Your task to perform on an android device: Search for Mexican restaurants on Maps Image 0: 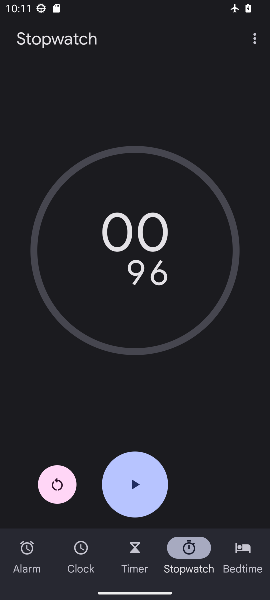
Step 0: press home button
Your task to perform on an android device: Search for Mexican restaurants on Maps Image 1: 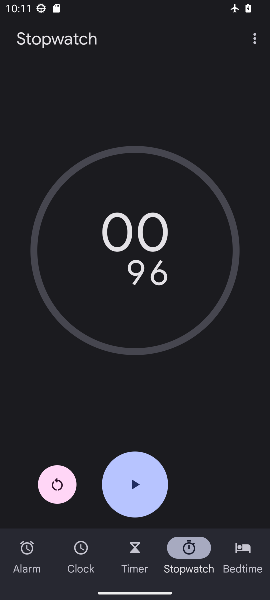
Step 1: press home button
Your task to perform on an android device: Search for Mexican restaurants on Maps Image 2: 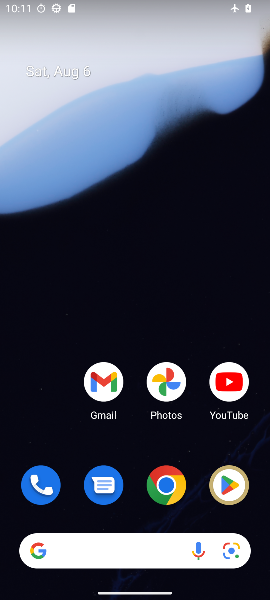
Step 2: drag from (181, 458) to (186, 14)
Your task to perform on an android device: Search for Mexican restaurants on Maps Image 3: 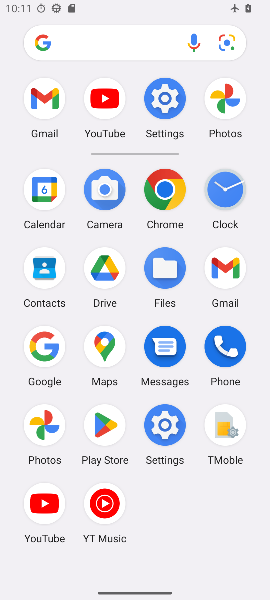
Step 3: click (102, 359)
Your task to perform on an android device: Search for Mexican restaurants on Maps Image 4: 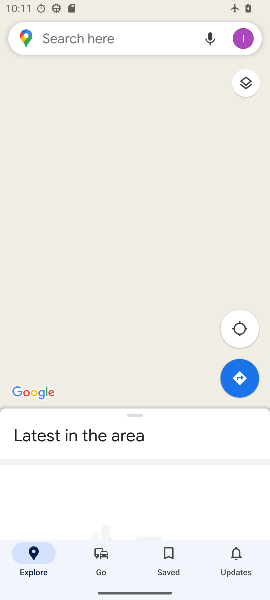
Step 4: click (165, 47)
Your task to perform on an android device: Search for Mexican restaurants on Maps Image 5: 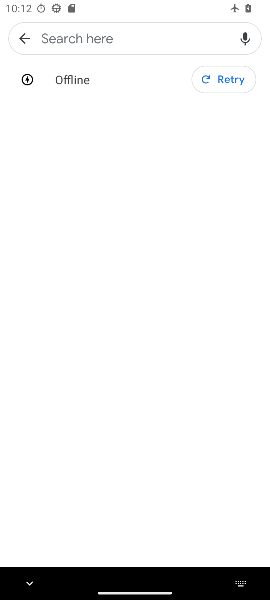
Step 5: type "Mexcian restaurants"
Your task to perform on an android device: Search for Mexican restaurants on Maps Image 6: 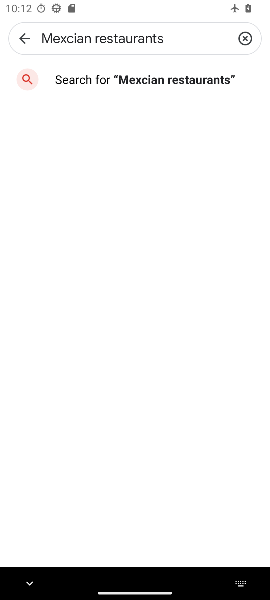
Step 6: press enter
Your task to perform on an android device: Search for Mexican restaurants on Maps Image 7: 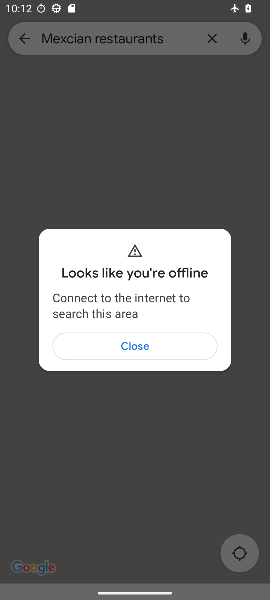
Step 7: click (100, 342)
Your task to perform on an android device: Search for Mexican restaurants on Maps Image 8: 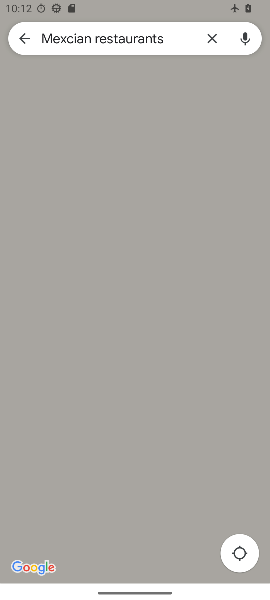
Step 8: task complete